Your task to perform on an android device: make emails show in primary in the gmail app Image 0: 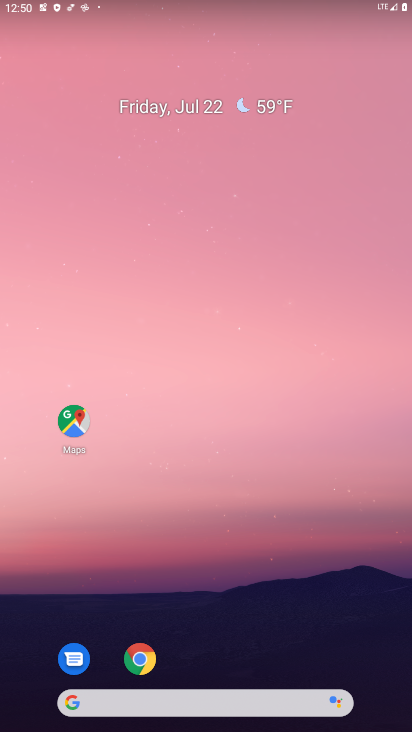
Step 0: drag from (286, 672) to (349, 49)
Your task to perform on an android device: make emails show in primary in the gmail app Image 1: 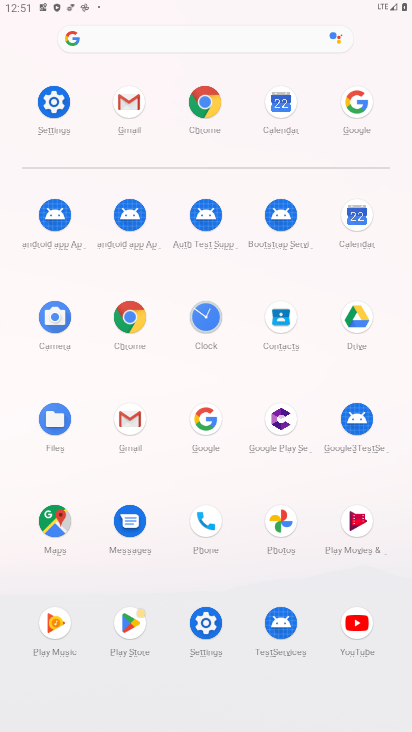
Step 1: click (117, 113)
Your task to perform on an android device: make emails show in primary in the gmail app Image 2: 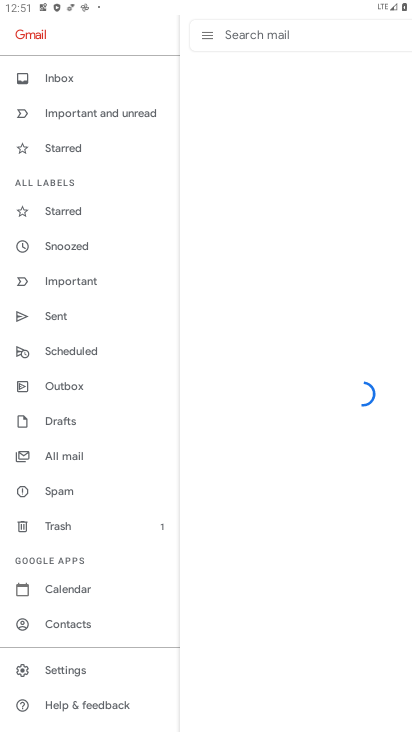
Step 2: click (46, 672)
Your task to perform on an android device: make emails show in primary in the gmail app Image 3: 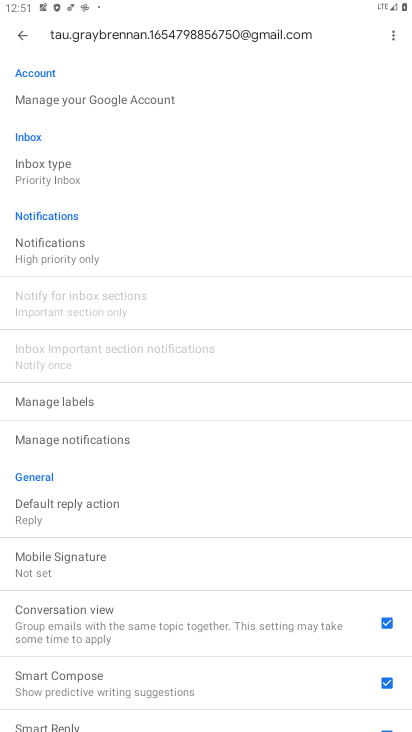
Step 3: click (66, 176)
Your task to perform on an android device: make emails show in primary in the gmail app Image 4: 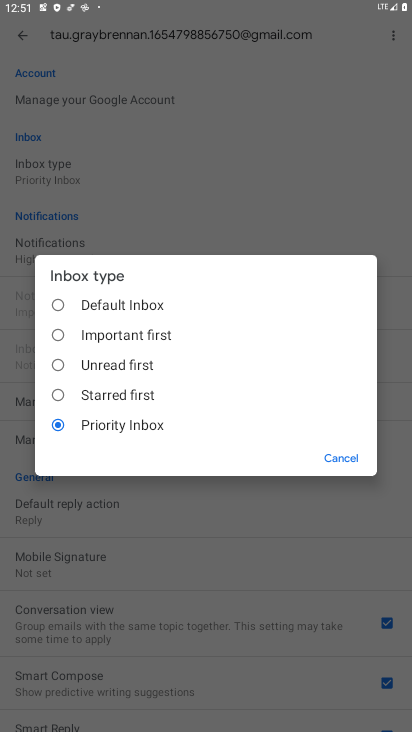
Step 4: click (87, 304)
Your task to perform on an android device: make emails show in primary in the gmail app Image 5: 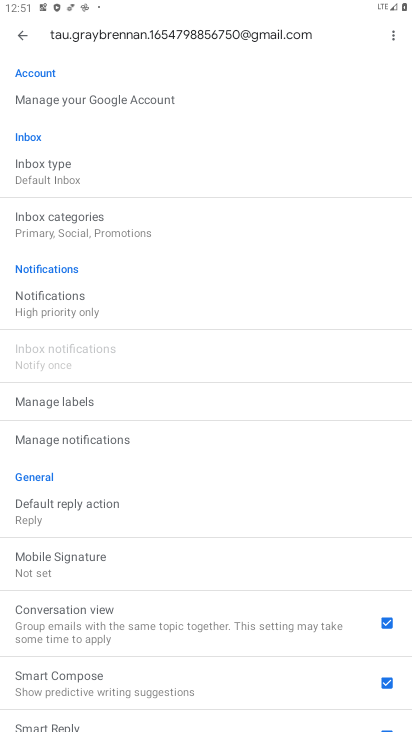
Step 5: task complete